Your task to perform on an android device: read, delete, or share a saved page in the chrome app Image 0: 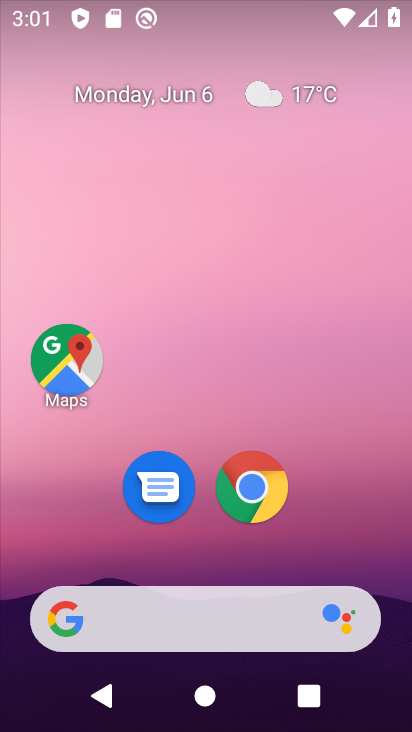
Step 0: click (263, 506)
Your task to perform on an android device: read, delete, or share a saved page in the chrome app Image 1: 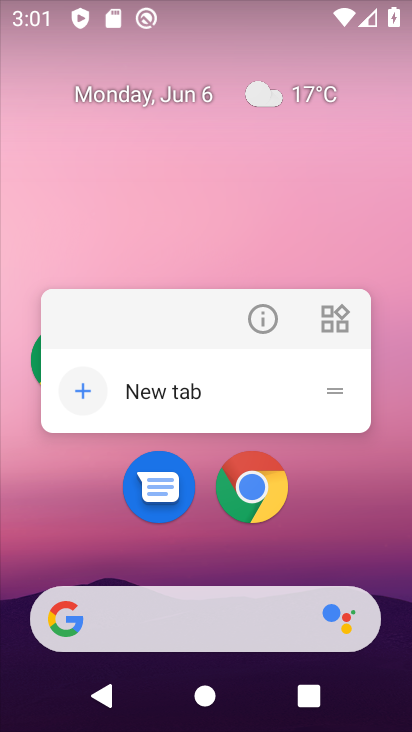
Step 1: click (263, 481)
Your task to perform on an android device: read, delete, or share a saved page in the chrome app Image 2: 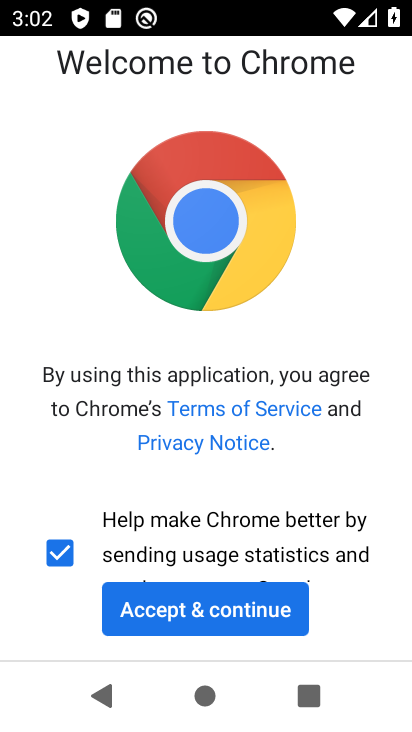
Step 2: click (245, 620)
Your task to perform on an android device: read, delete, or share a saved page in the chrome app Image 3: 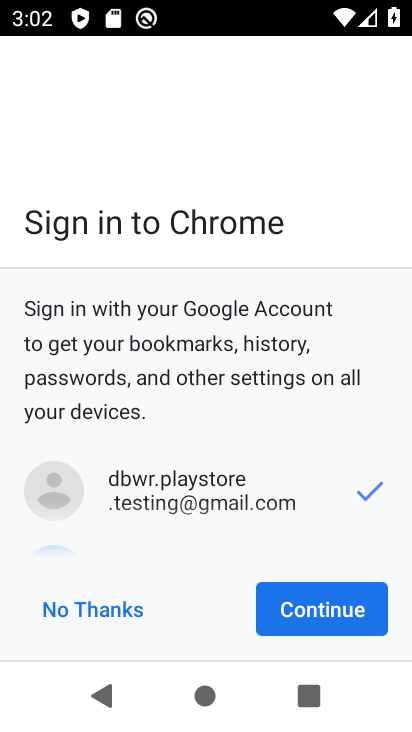
Step 3: click (322, 615)
Your task to perform on an android device: read, delete, or share a saved page in the chrome app Image 4: 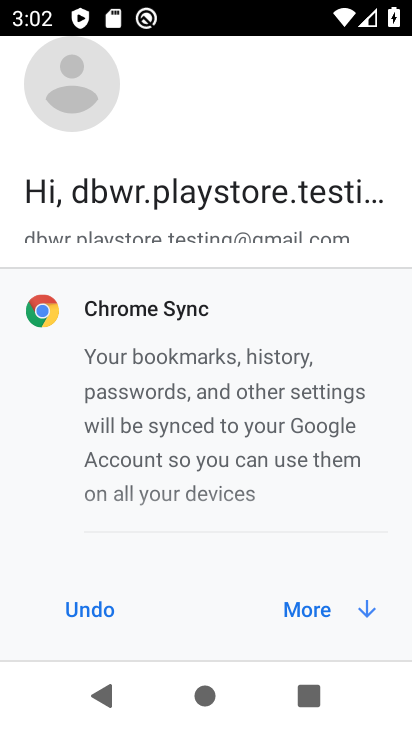
Step 4: click (322, 615)
Your task to perform on an android device: read, delete, or share a saved page in the chrome app Image 5: 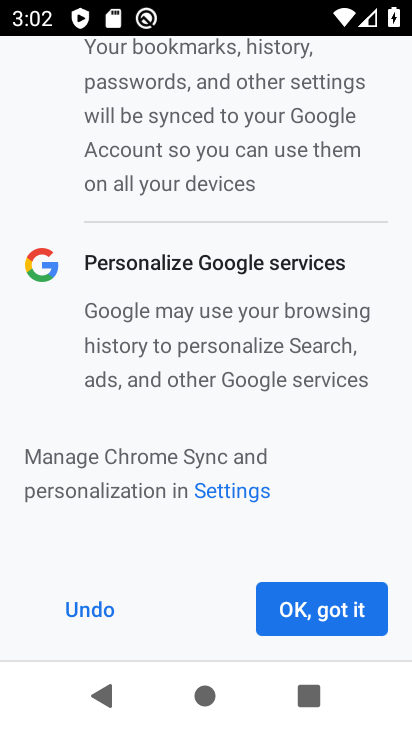
Step 5: click (322, 615)
Your task to perform on an android device: read, delete, or share a saved page in the chrome app Image 6: 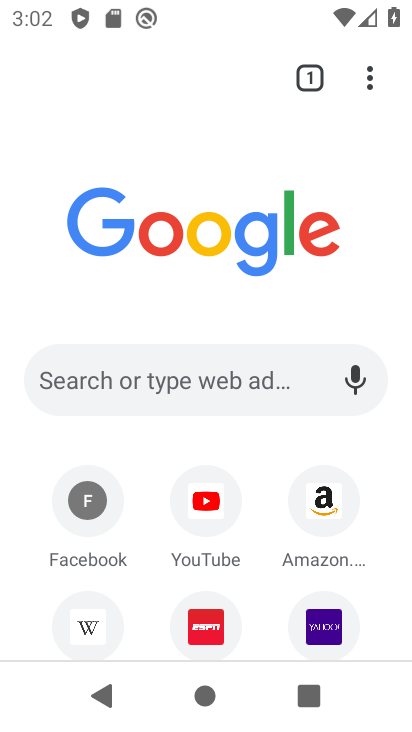
Step 6: drag from (383, 77) to (374, 23)
Your task to perform on an android device: read, delete, or share a saved page in the chrome app Image 7: 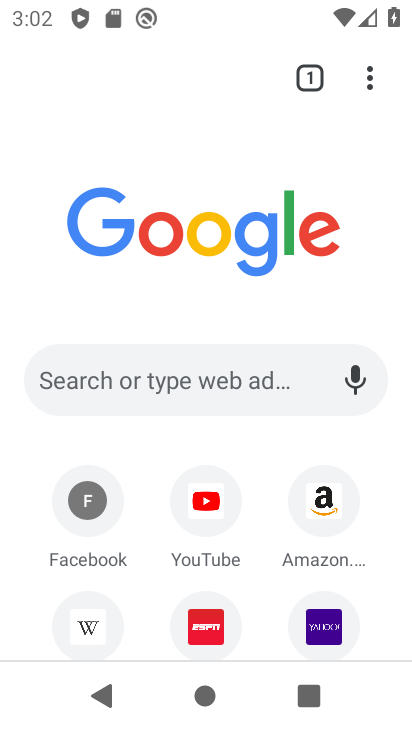
Step 7: drag from (376, 86) to (233, 542)
Your task to perform on an android device: read, delete, or share a saved page in the chrome app Image 8: 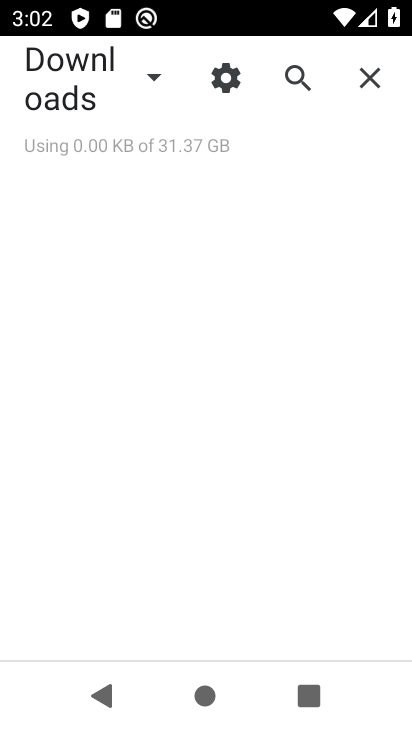
Step 8: click (366, 88)
Your task to perform on an android device: read, delete, or share a saved page in the chrome app Image 9: 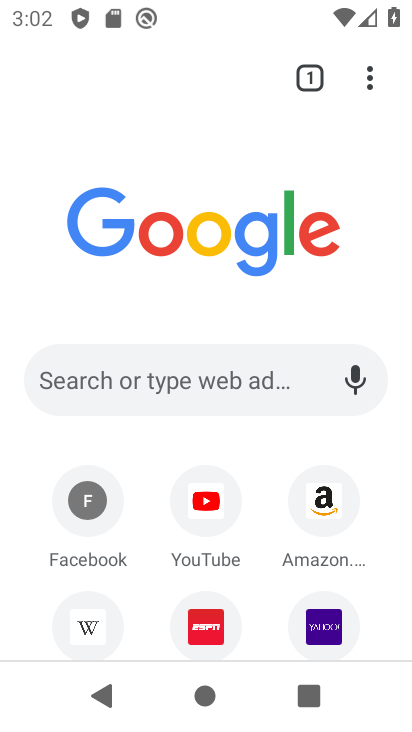
Step 9: drag from (371, 82) to (254, 498)
Your task to perform on an android device: read, delete, or share a saved page in the chrome app Image 10: 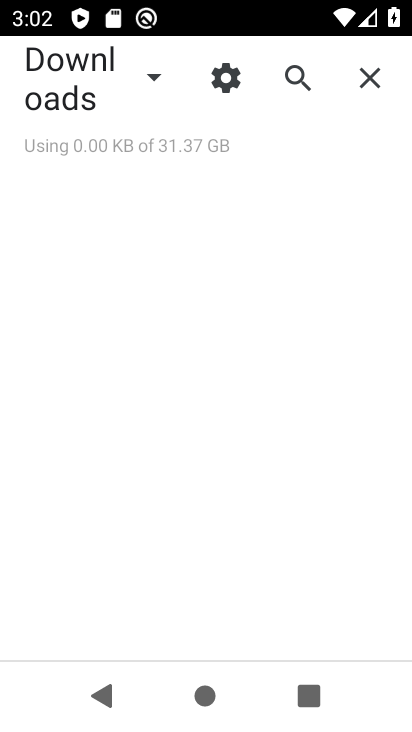
Step 10: click (96, 84)
Your task to perform on an android device: read, delete, or share a saved page in the chrome app Image 11: 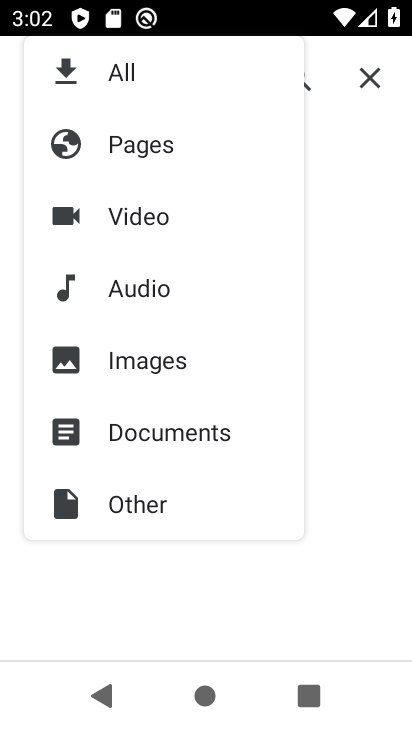
Step 11: click (132, 164)
Your task to perform on an android device: read, delete, or share a saved page in the chrome app Image 12: 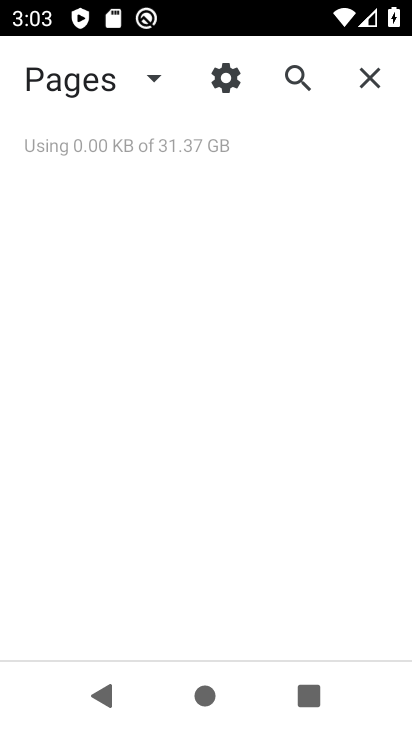
Step 12: task complete